Your task to perform on an android device: turn on bluetooth scan Image 0: 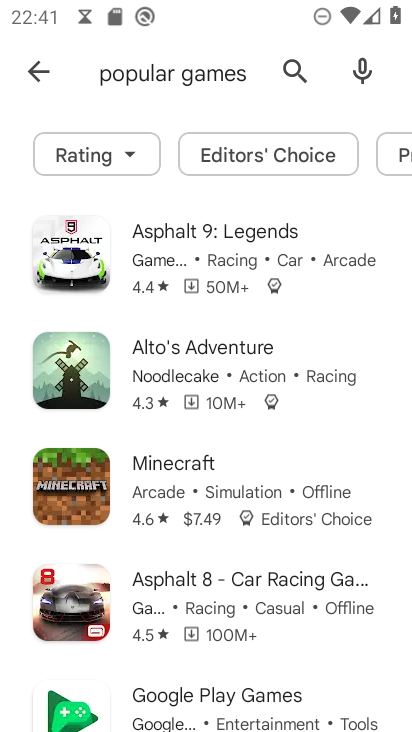
Step 0: press home button
Your task to perform on an android device: turn on bluetooth scan Image 1: 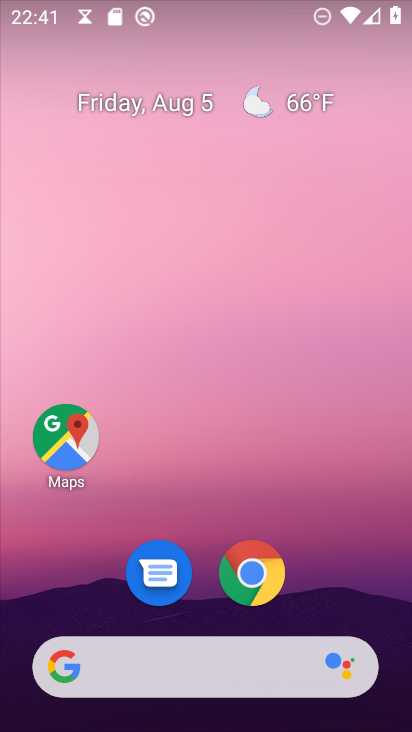
Step 1: drag from (188, 674) to (271, 17)
Your task to perform on an android device: turn on bluetooth scan Image 2: 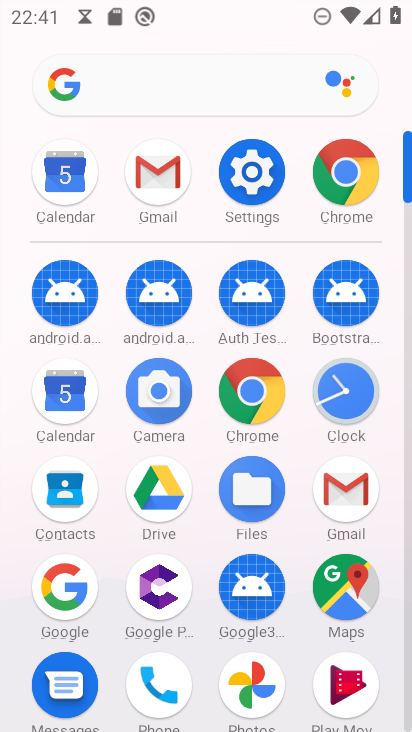
Step 2: click (252, 170)
Your task to perform on an android device: turn on bluetooth scan Image 3: 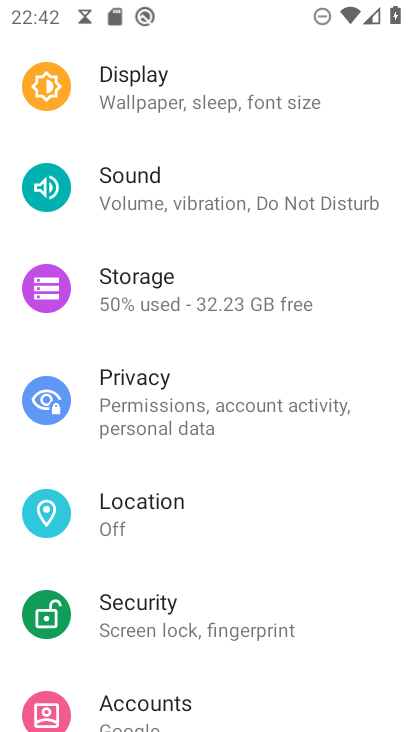
Step 3: click (171, 503)
Your task to perform on an android device: turn on bluetooth scan Image 4: 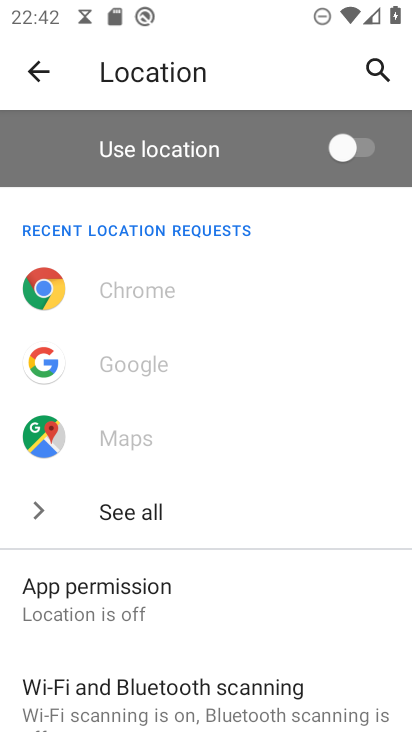
Step 4: drag from (193, 647) to (297, 491)
Your task to perform on an android device: turn on bluetooth scan Image 5: 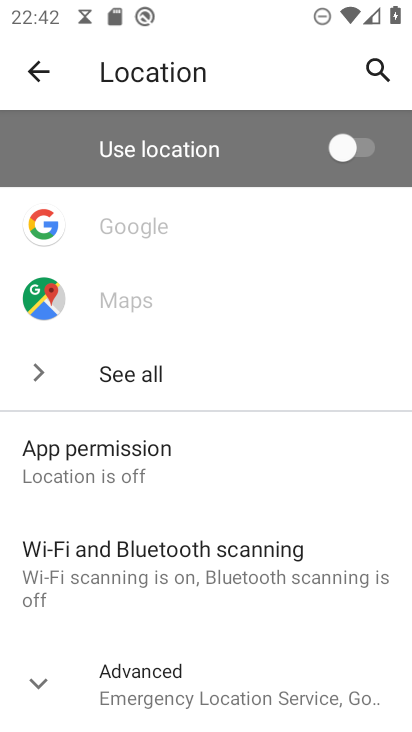
Step 5: click (200, 568)
Your task to perform on an android device: turn on bluetooth scan Image 6: 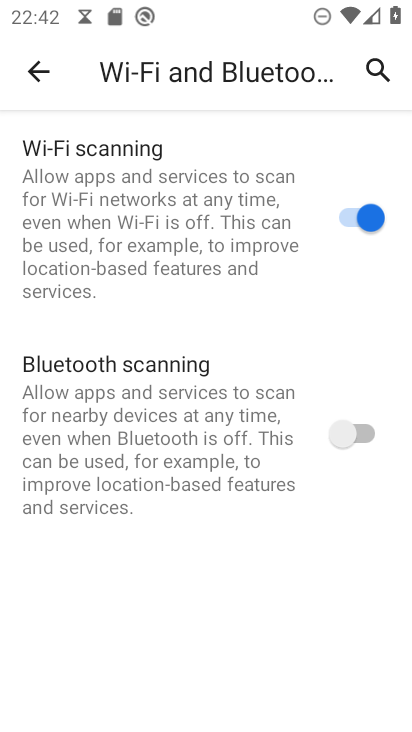
Step 6: click (351, 434)
Your task to perform on an android device: turn on bluetooth scan Image 7: 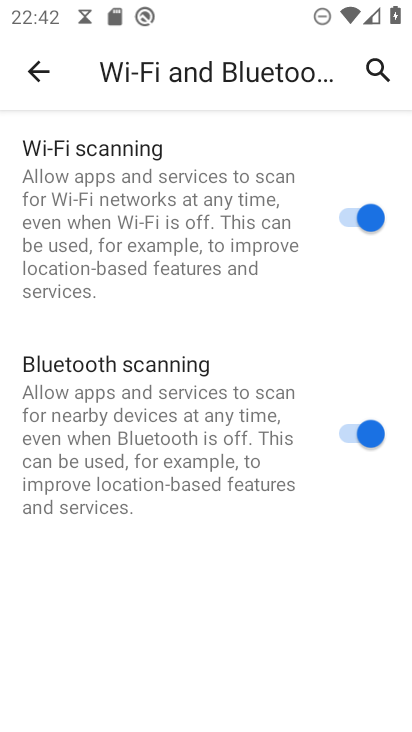
Step 7: task complete